Your task to perform on an android device: Find coffee shops on Maps Image 0: 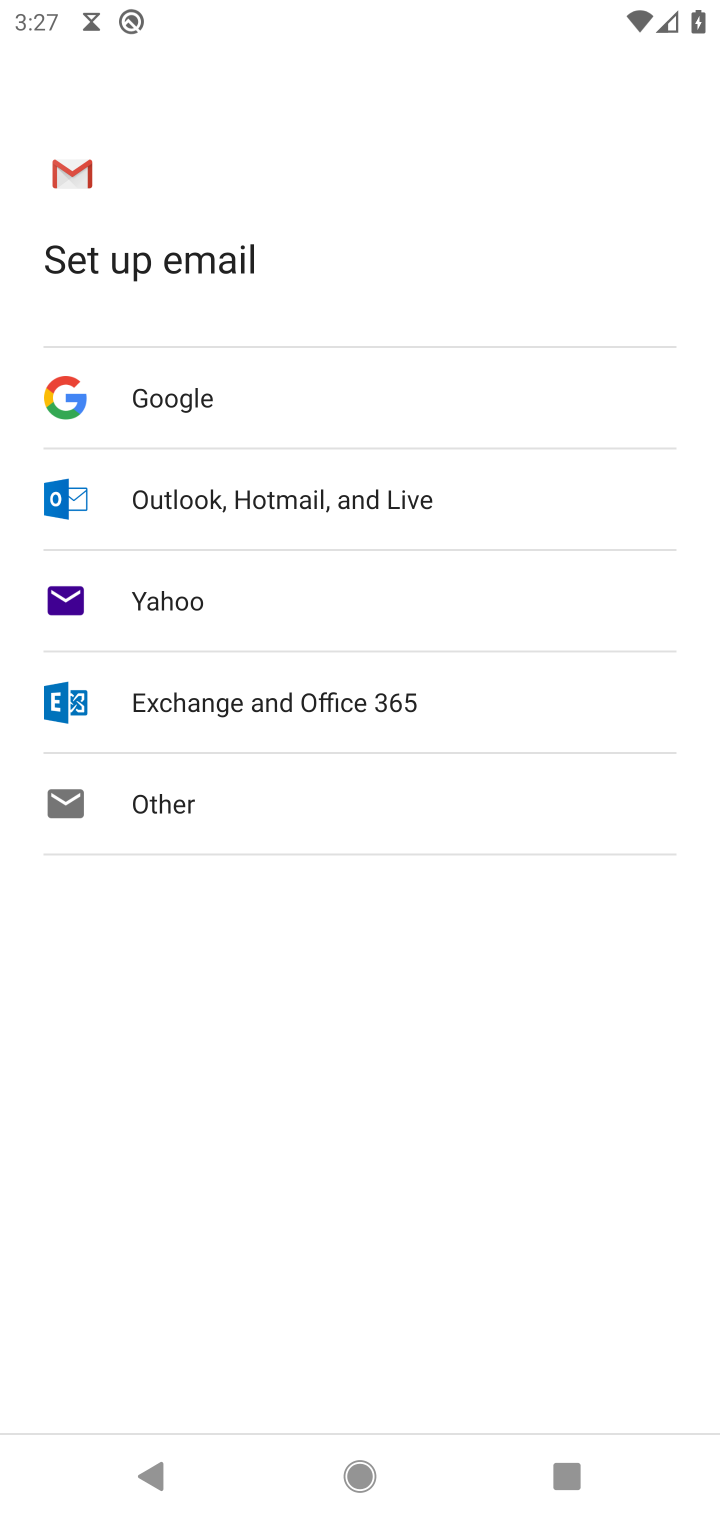
Step 0: press home button
Your task to perform on an android device: Find coffee shops on Maps Image 1: 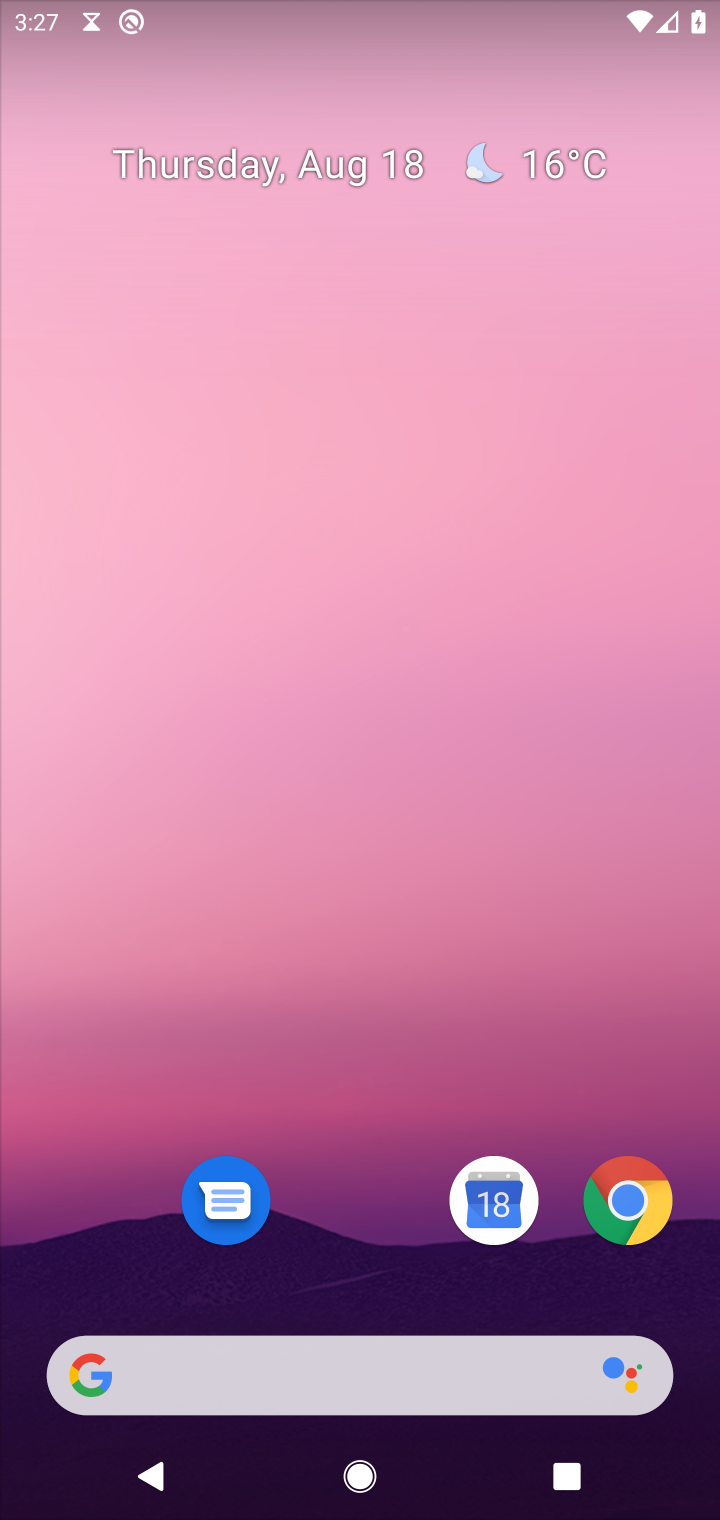
Step 1: drag from (395, 1001) to (523, 163)
Your task to perform on an android device: Find coffee shops on Maps Image 2: 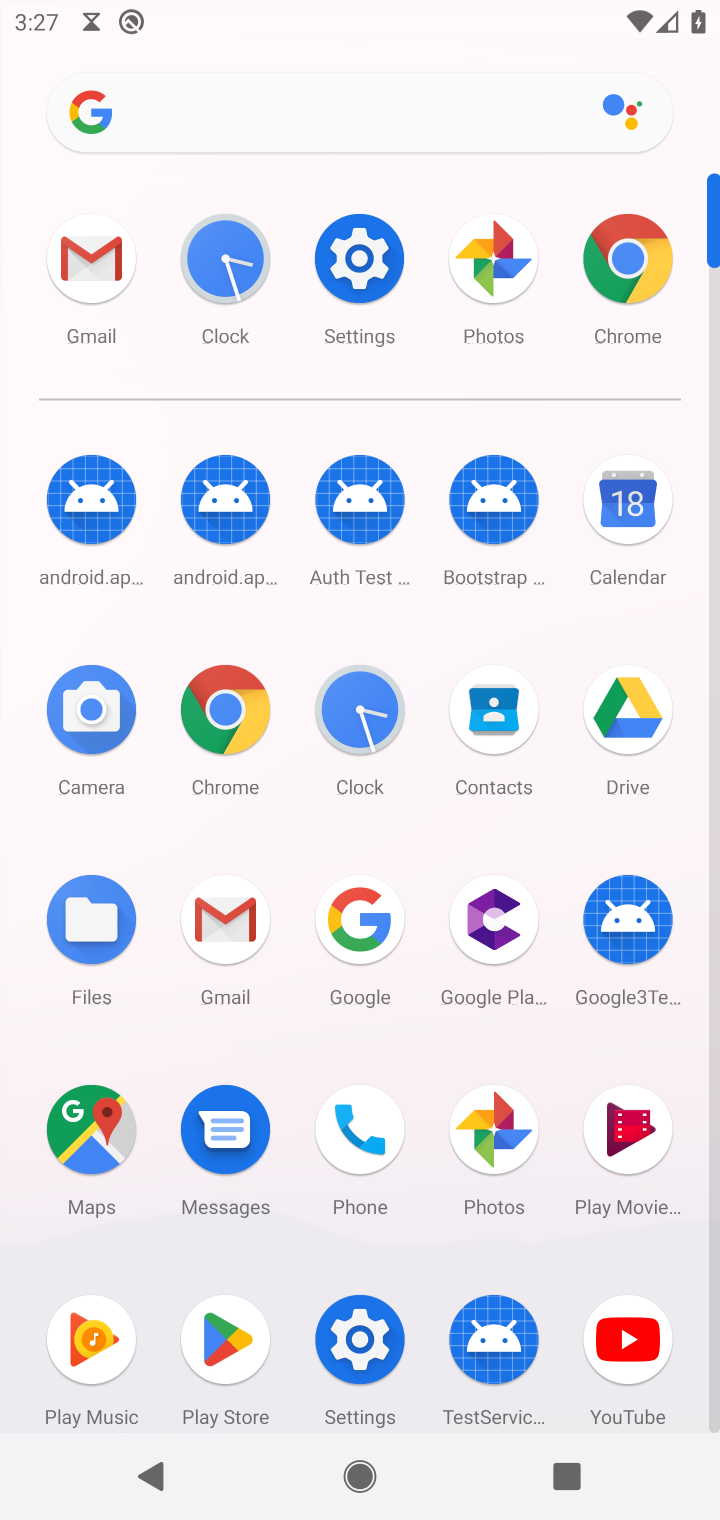
Step 2: click (92, 1124)
Your task to perform on an android device: Find coffee shops on Maps Image 3: 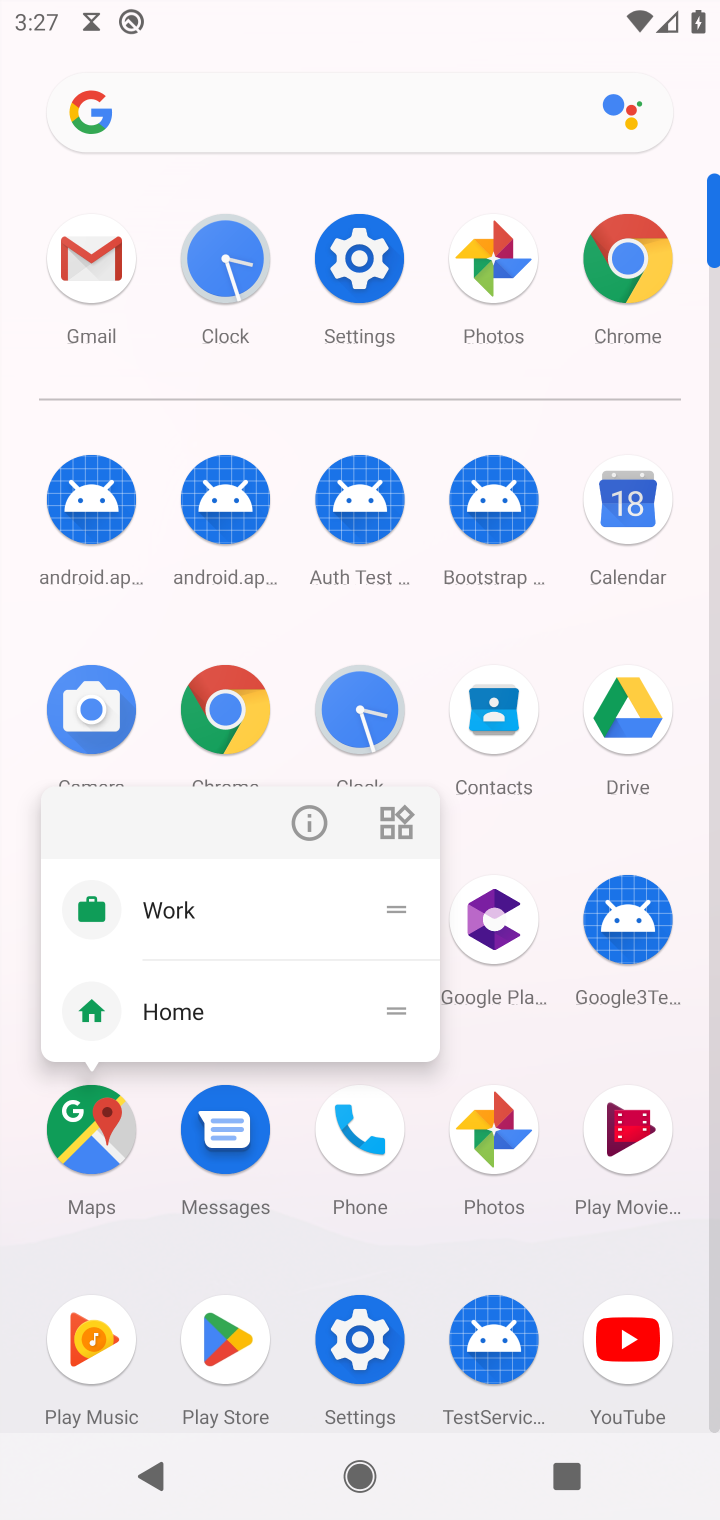
Step 3: click (82, 1126)
Your task to perform on an android device: Find coffee shops on Maps Image 4: 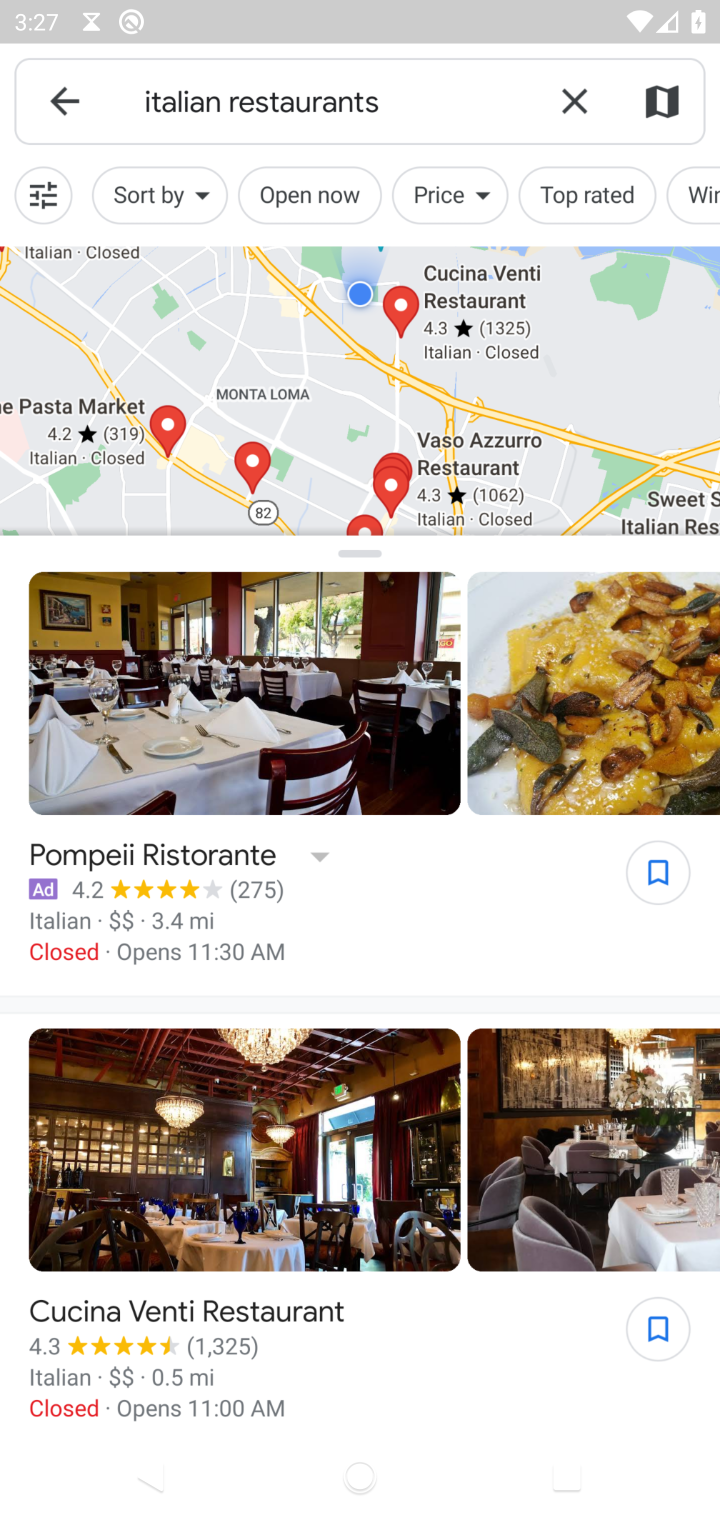
Step 4: click (576, 85)
Your task to perform on an android device: Find coffee shops on Maps Image 5: 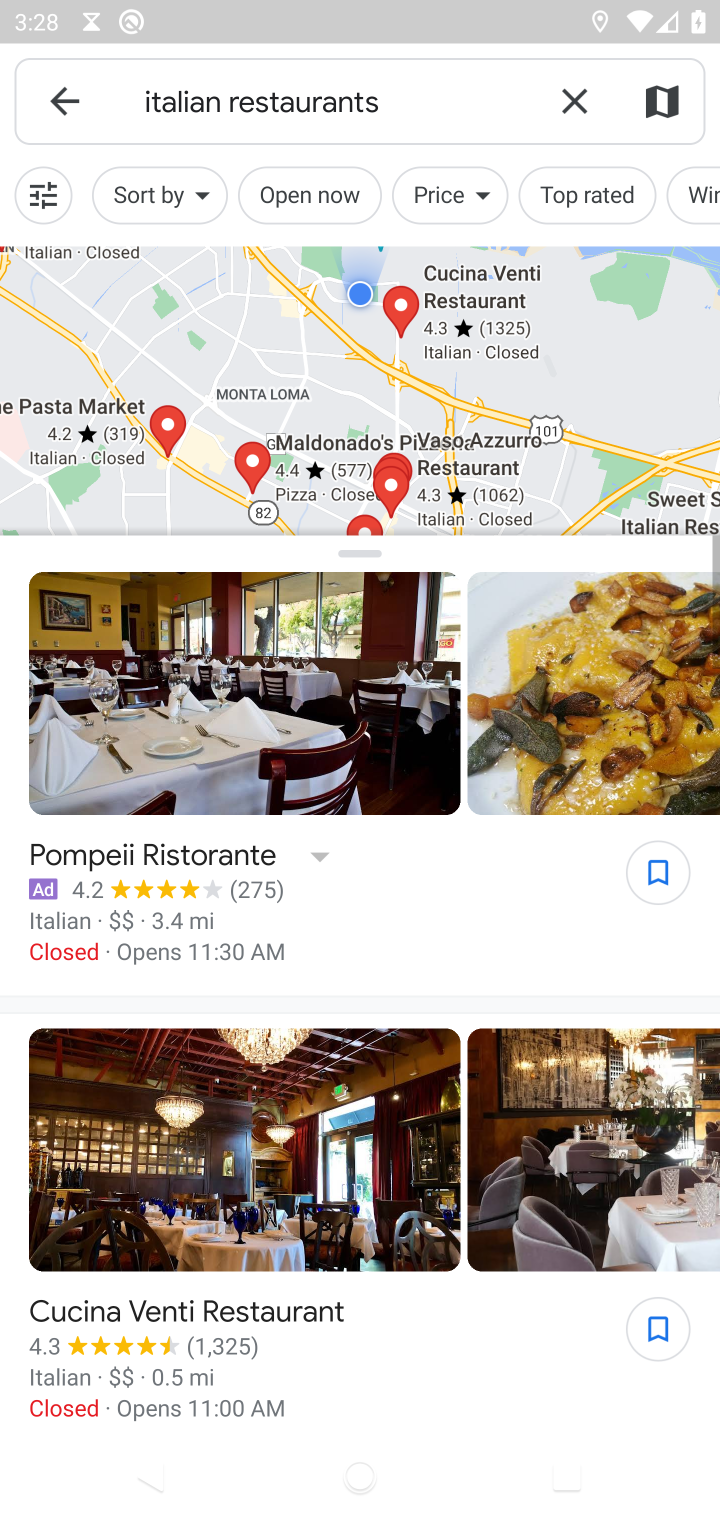
Step 5: click (574, 99)
Your task to perform on an android device: Find coffee shops on Maps Image 6: 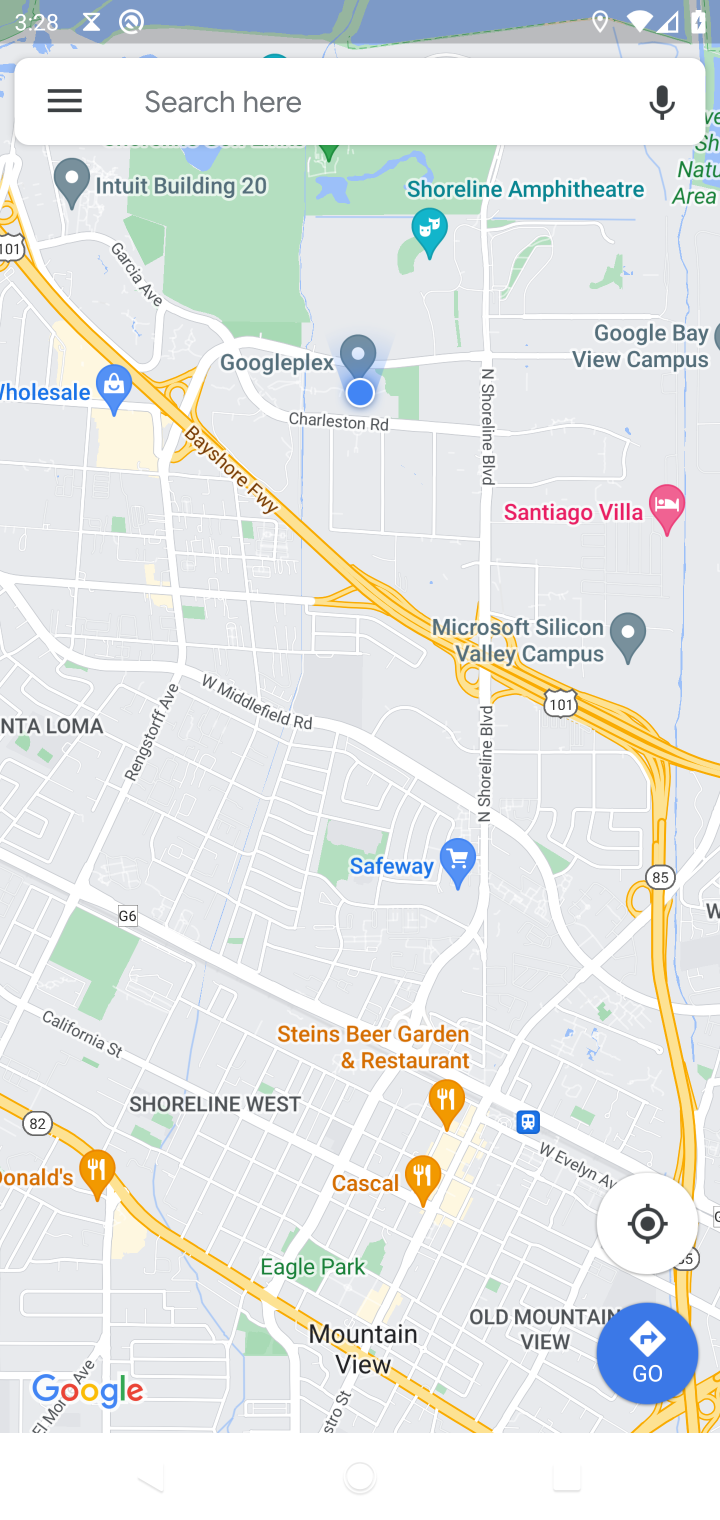
Step 6: click (248, 85)
Your task to perform on an android device: Find coffee shops on Maps Image 7: 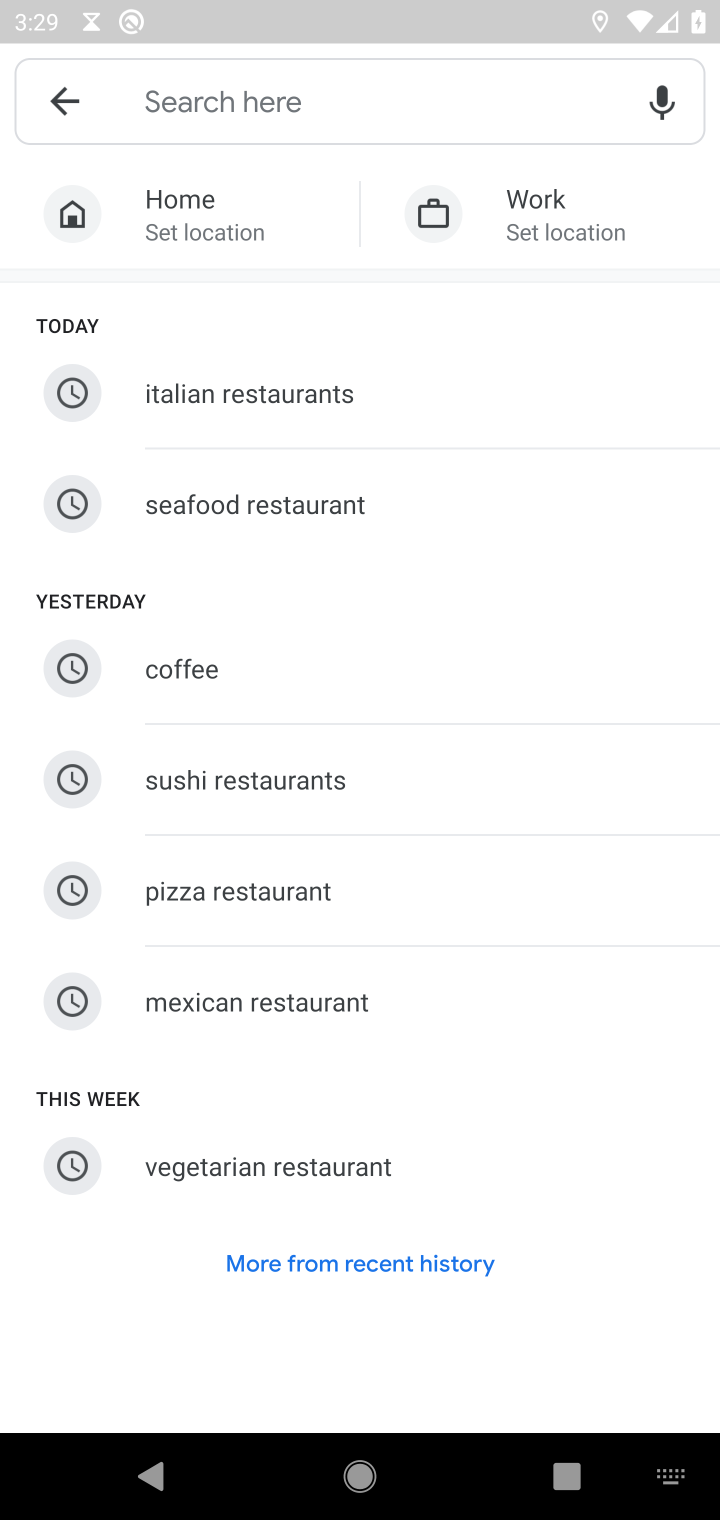
Step 7: type "coffee shops"
Your task to perform on an android device: Find coffee shops on Maps Image 8: 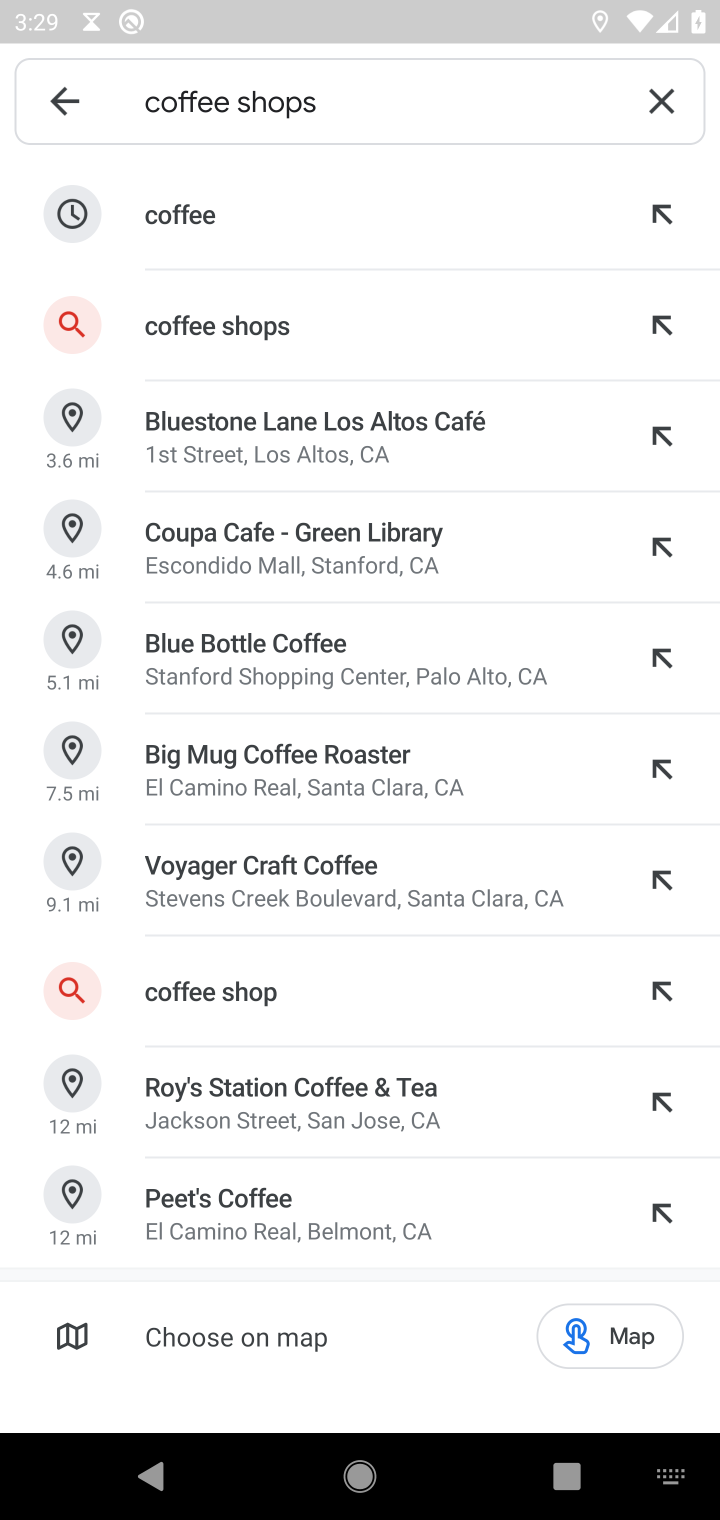
Step 8: click (330, 337)
Your task to perform on an android device: Find coffee shops on Maps Image 9: 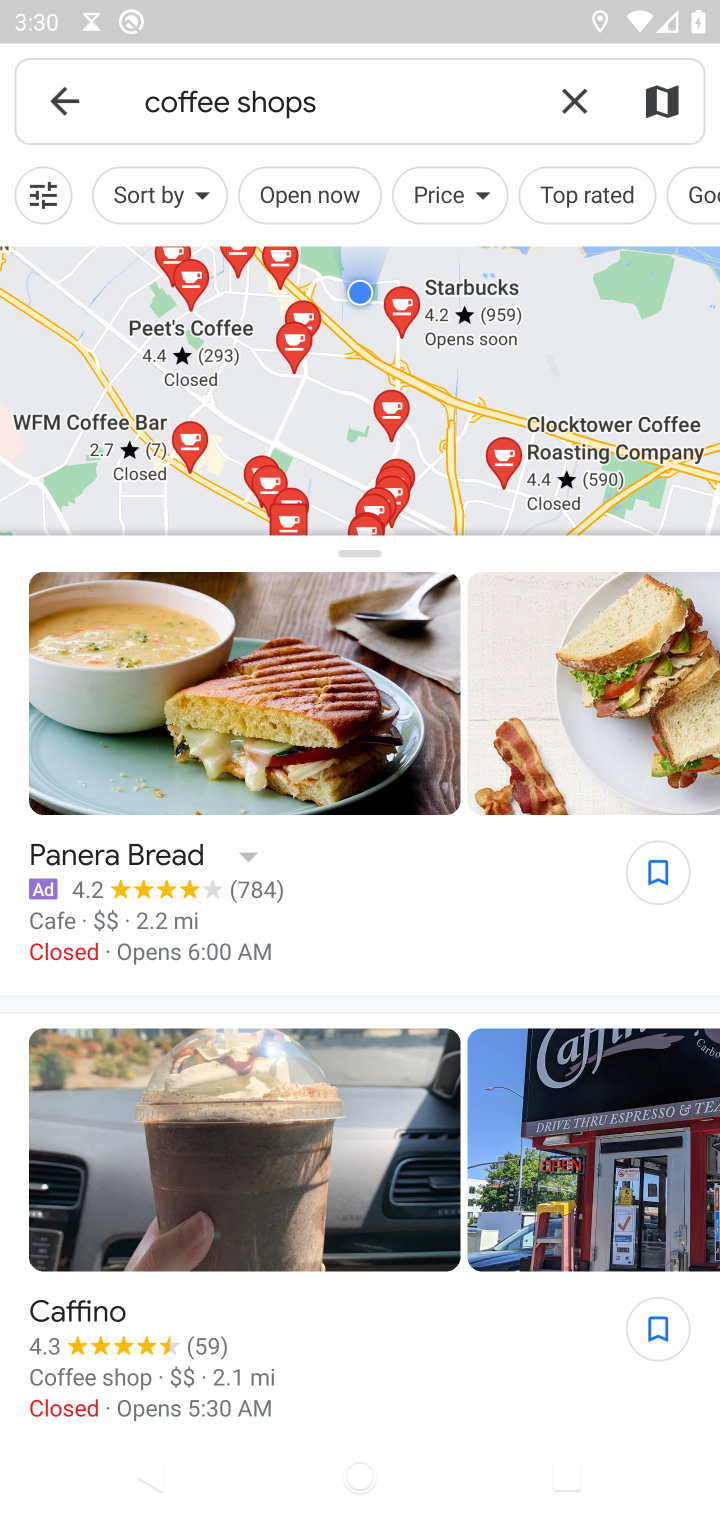
Step 9: task complete